Your task to perform on an android device: turn on notifications settings in the gmail app Image 0: 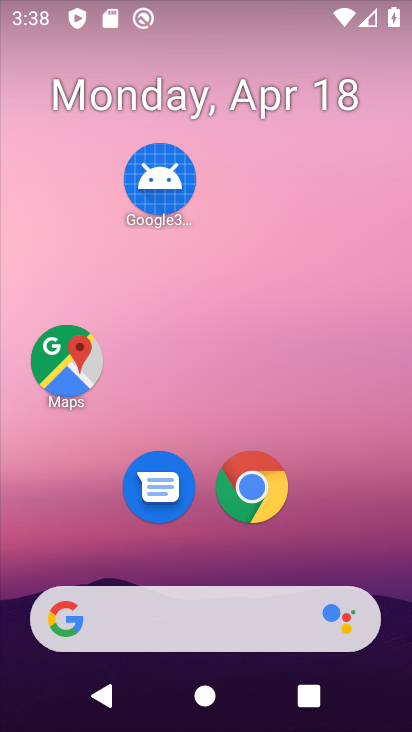
Step 0: drag from (217, 563) to (298, 2)
Your task to perform on an android device: turn on notifications settings in the gmail app Image 1: 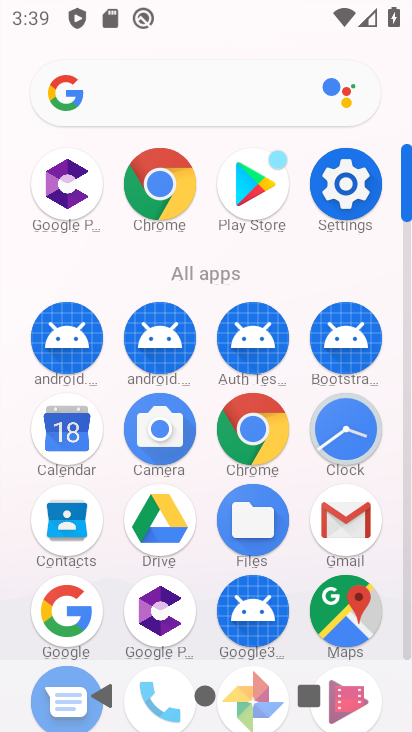
Step 1: click (360, 521)
Your task to perform on an android device: turn on notifications settings in the gmail app Image 2: 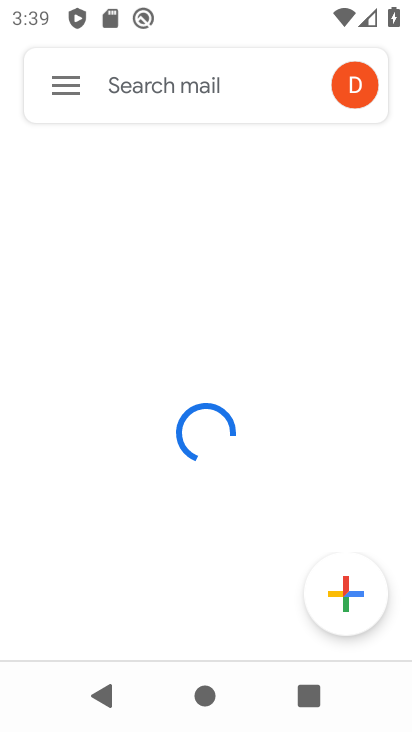
Step 2: click (47, 88)
Your task to perform on an android device: turn on notifications settings in the gmail app Image 3: 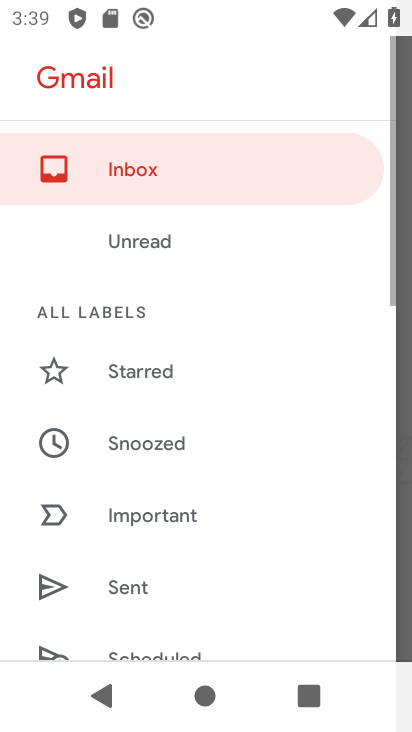
Step 3: drag from (147, 544) to (143, 40)
Your task to perform on an android device: turn on notifications settings in the gmail app Image 4: 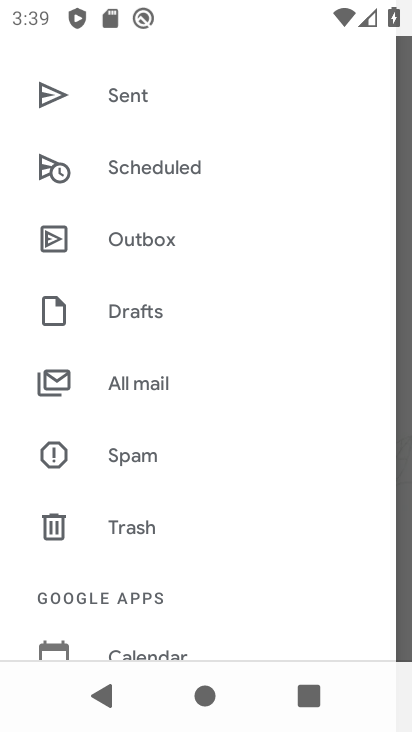
Step 4: drag from (125, 468) to (95, 110)
Your task to perform on an android device: turn on notifications settings in the gmail app Image 5: 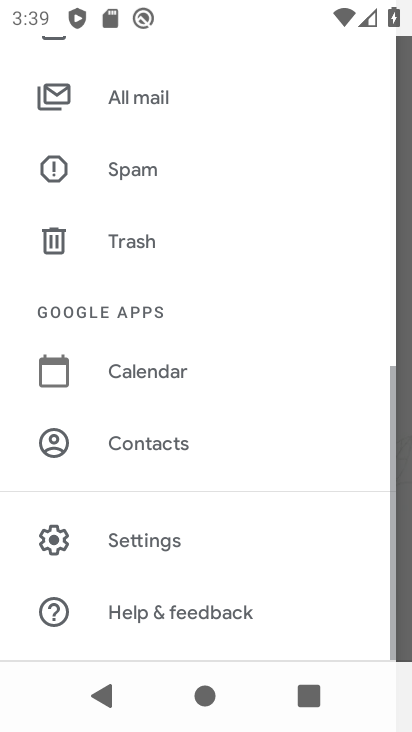
Step 5: click (148, 548)
Your task to perform on an android device: turn on notifications settings in the gmail app Image 6: 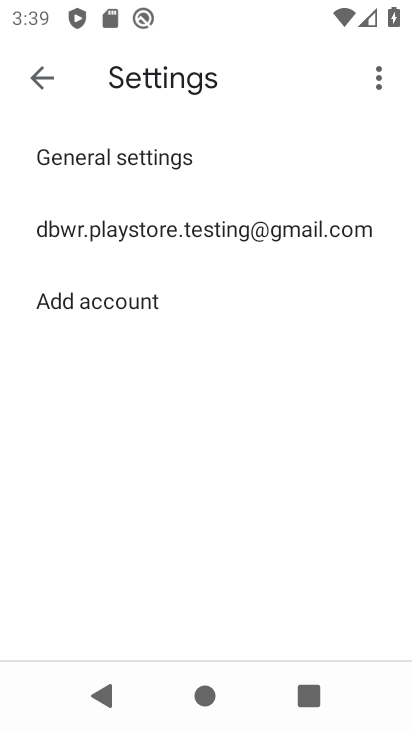
Step 6: click (99, 171)
Your task to perform on an android device: turn on notifications settings in the gmail app Image 7: 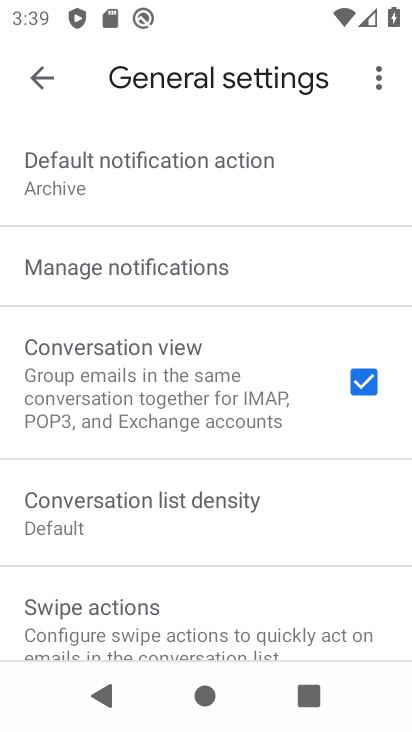
Step 7: drag from (178, 524) to (175, 480)
Your task to perform on an android device: turn on notifications settings in the gmail app Image 8: 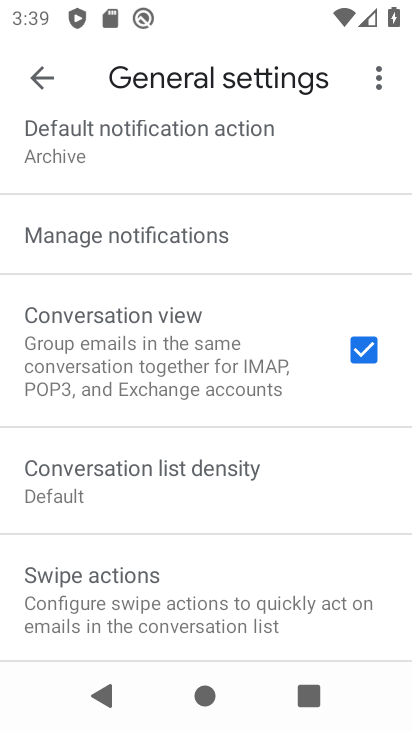
Step 8: click (113, 252)
Your task to perform on an android device: turn on notifications settings in the gmail app Image 9: 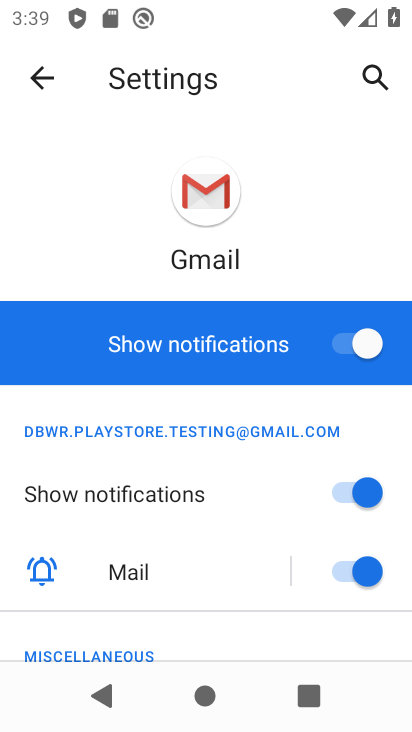
Step 9: task complete